Your task to perform on an android device: Go to internet settings Image 0: 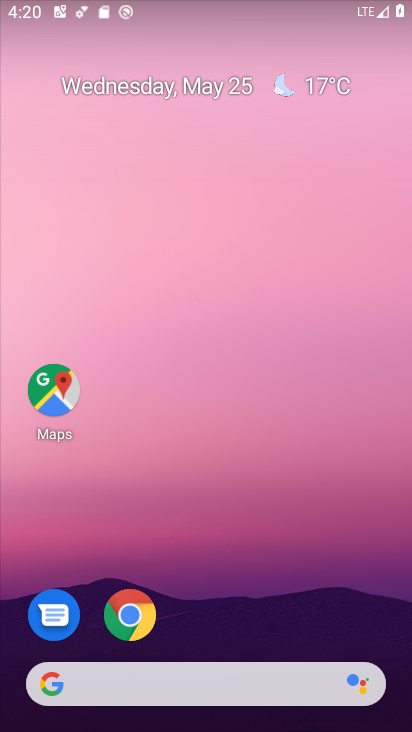
Step 0: drag from (259, 357) to (150, 31)
Your task to perform on an android device: Go to internet settings Image 1: 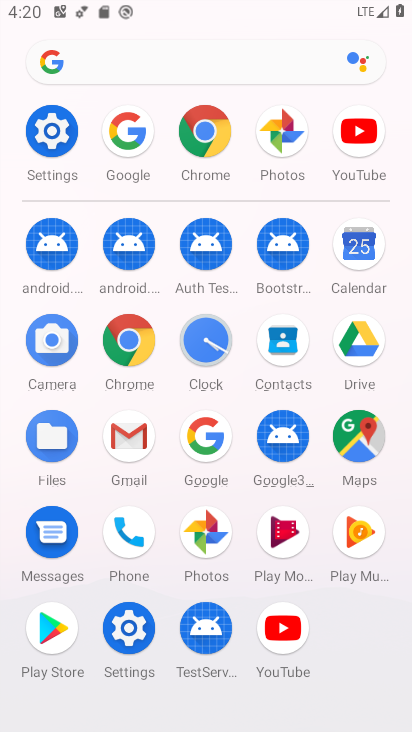
Step 1: click (62, 141)
Your task to perform on an android device: Go to internet settings Image 2: 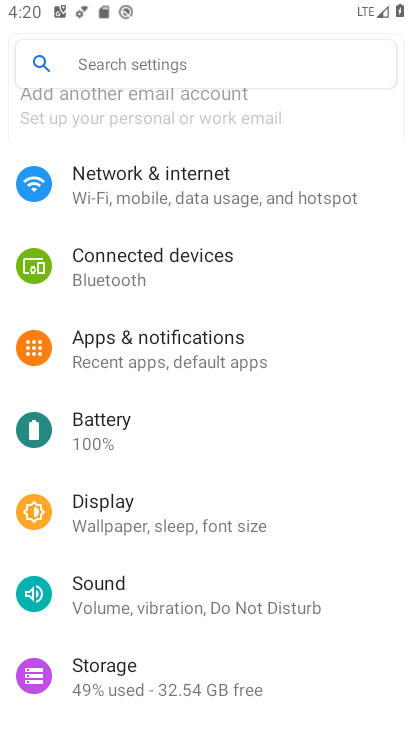
Step 2: task complete